Your task to perform on an android device: allow cookies in the chrome app Image 0: 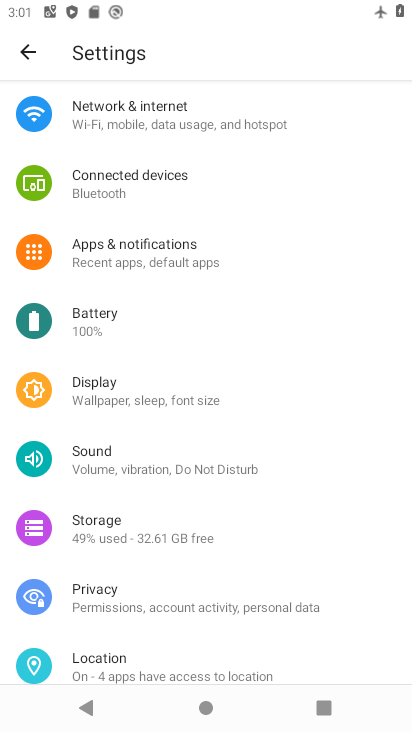
Step 0: press home button
Your task to perform on an android device: allow cookies in the chrome app Image 1: 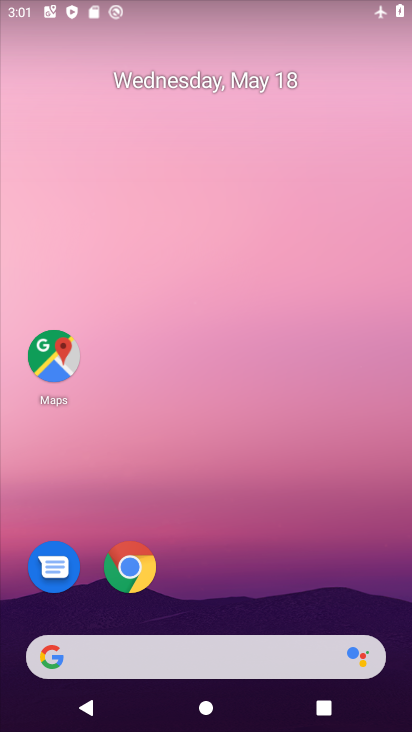
Step 1: drag from (232, 517) to (202, 250)
Your task to perform on an android device: allow cookies in the chrome app Image 2: 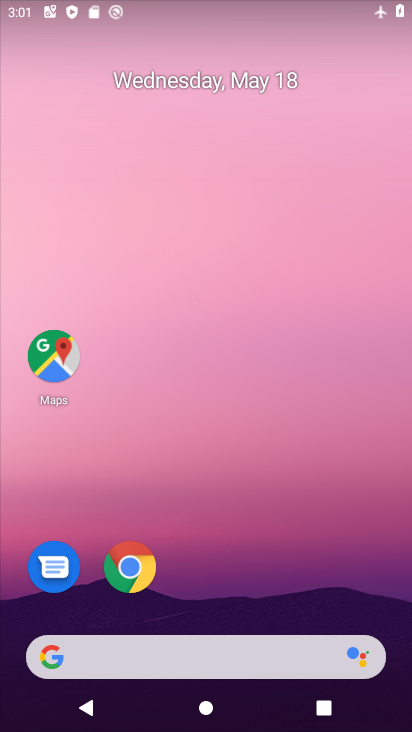
Step 2: drag from (187, 628) to (214, 216)
Your task to perform on an android device: allow cookies in the chrome app Image 3: 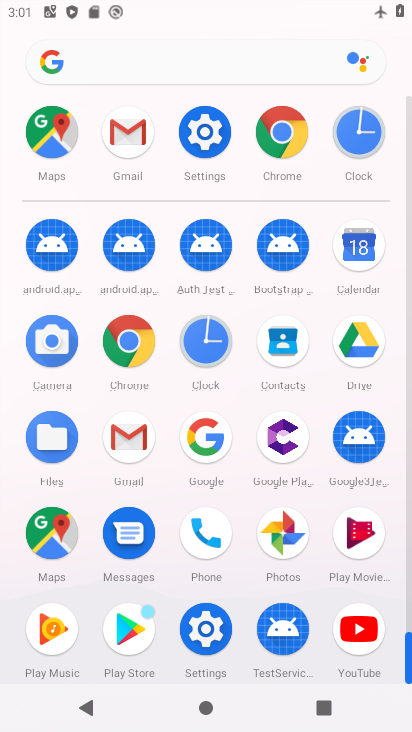
Step 3: click (122, 342)
Your task to perform on an android device: allow cookies in the chrome app Image 4: 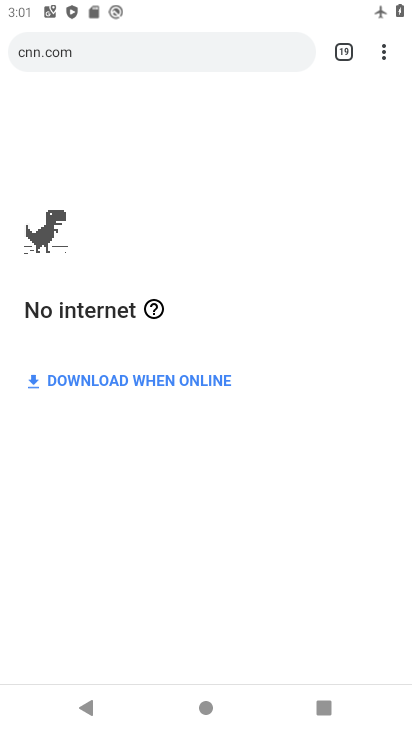
Step 4: click (386, 46)
Your task to perform on an android device: allow cookies in the chrome app Image 5: 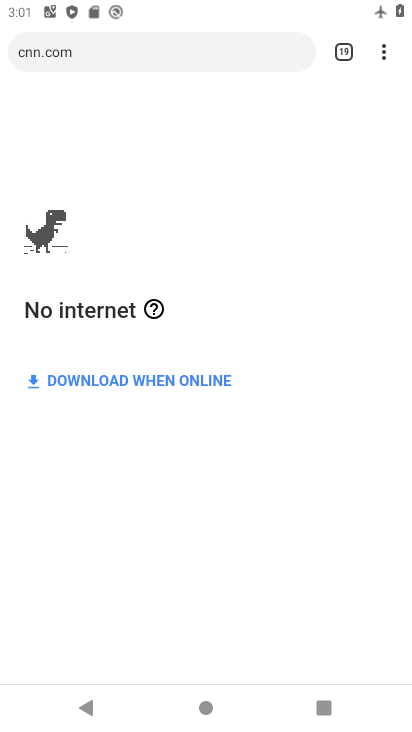
Step 5: click (370, 52)
Your task to perform on an android device: allow cookies in the chrome app Image 6: 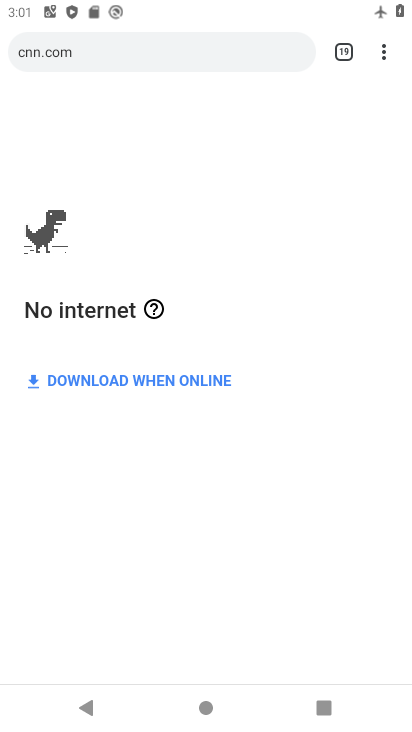
Step 6: click (374, 53)
Your task to perform on an android device: allow cookies in the chrome app Image 7: 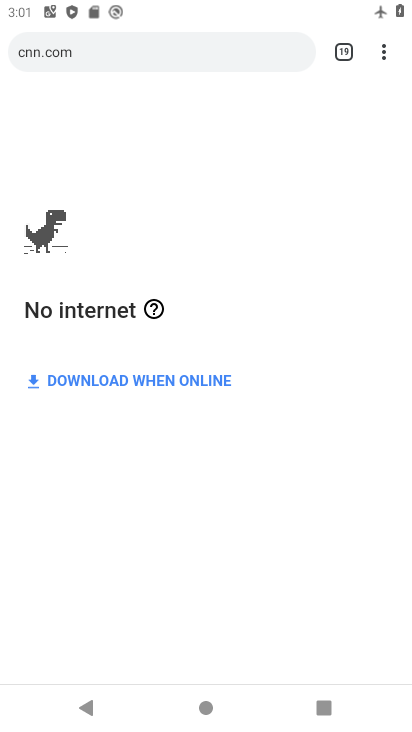
Step 7: click (377, 54)
Your task to perform on an android device: allow cookies in the chrome app Image 8: 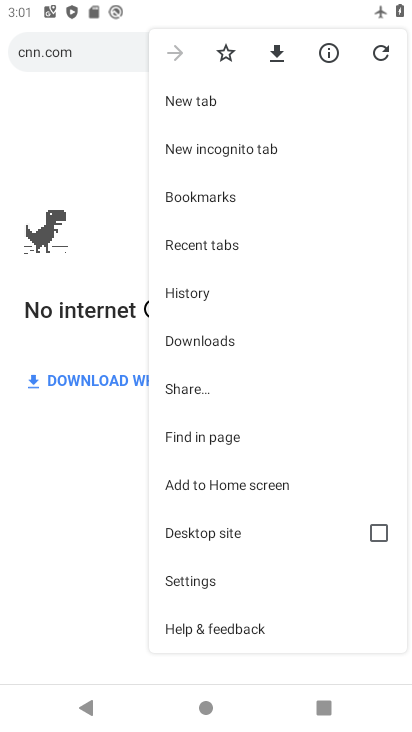
Step 8: click (210, 584)
Your task to perform on an android device: allow cookies in the chrome app Image 9: 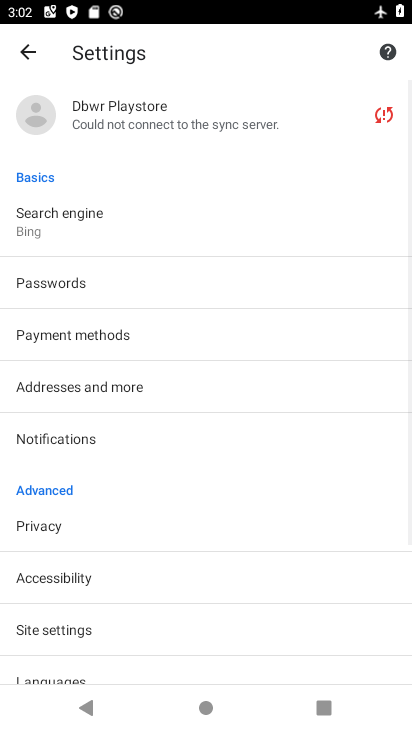
Step 9: drag from (218, 618) to (224, 478)
Your task to perform on an android device: allow cookies in the chrome app Image 10: 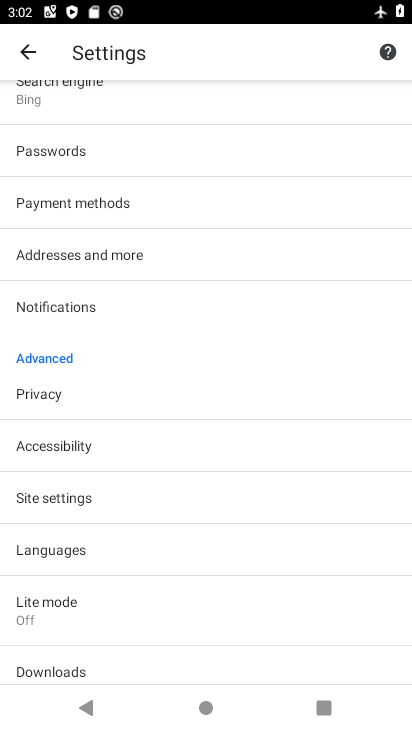
Step 10: click (74, 501)
Your task to perform on an android device: allow cookies in the chrome app Image 11: 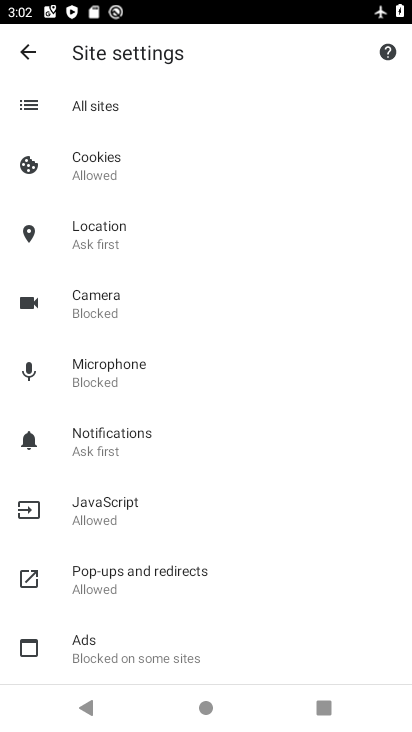
Step 11: click (128, 165)
Your task to perform on an android device: allow cookies in the chrome app Image 12: 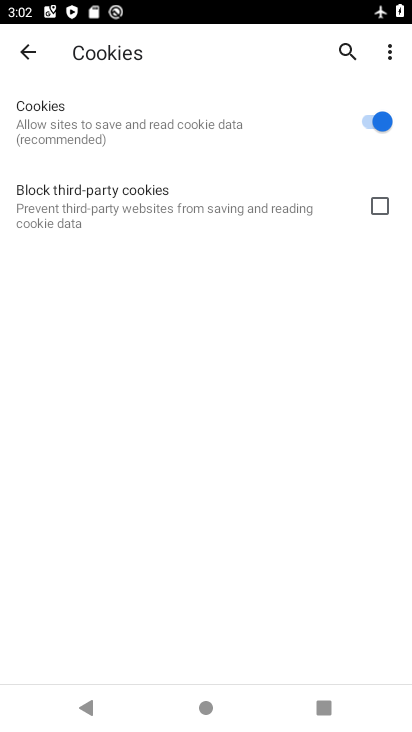
Step 12: task complete